Your task to perform on an android device: What's the weather going to be this weekend? Image 0: 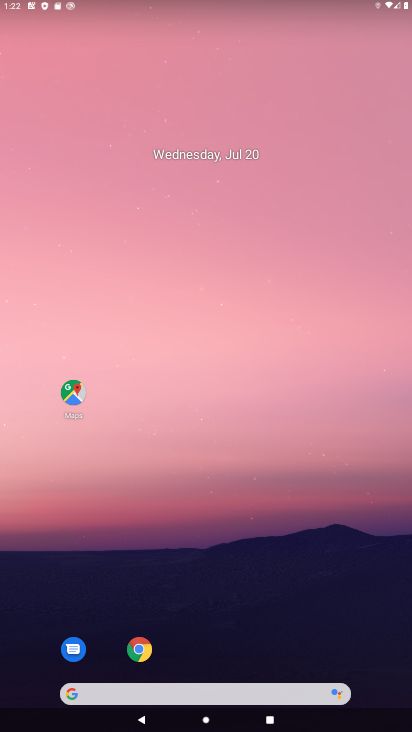
Step 0: press home button
Your task to perform on an android device: What's the weather going to be this weekend? Image 1: 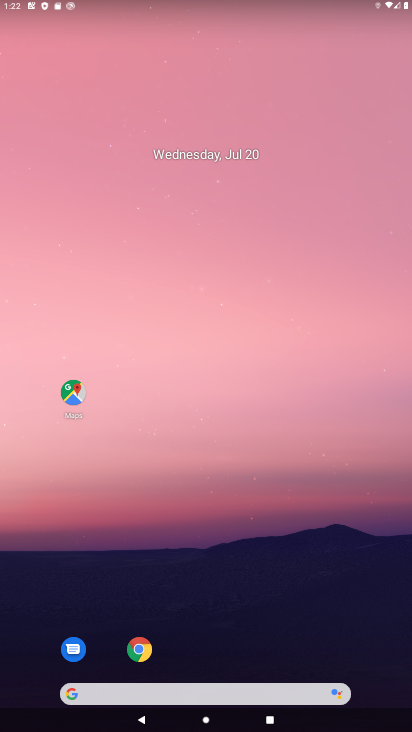
Step 1: click (145, 642)
Your task to perform on an android device: What's the weather going to be this weekend? Image 2: 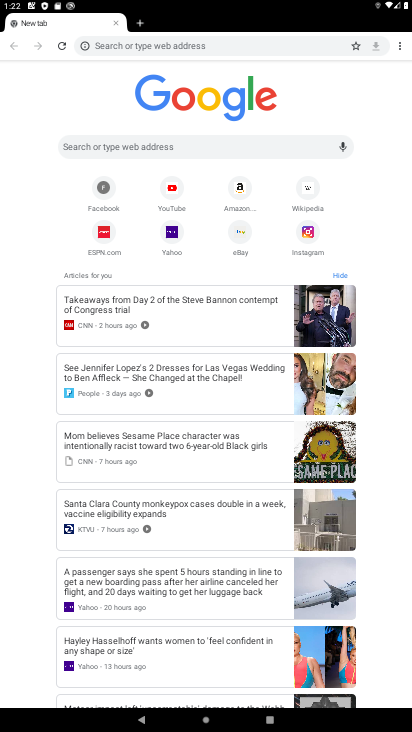
Step 2: click (212, 40)
Your task to perform on an android device: What's the weather going to be this weekend? Image 3: 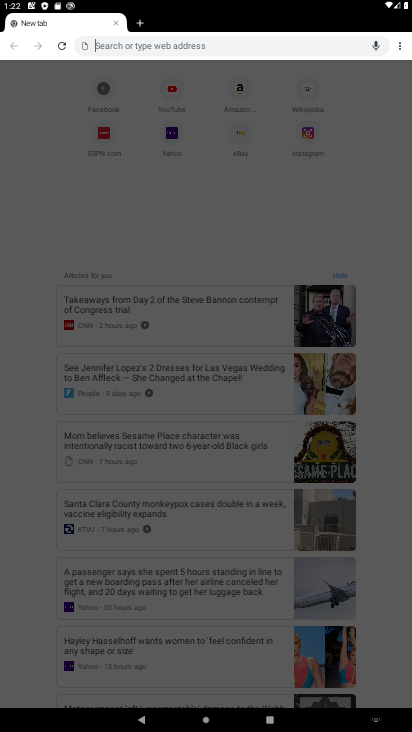
Step 3: type "What's the weather going to be this weekend?"
Your task to perform on an android device: What's the weather going to be this weekend? Image 4: 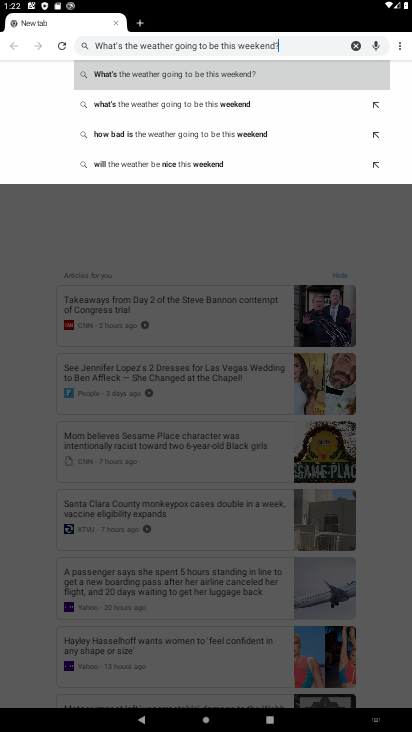
Step 4: type ""
Your task to perform on an android device: What's the weather going to be this weekend? Image 5: 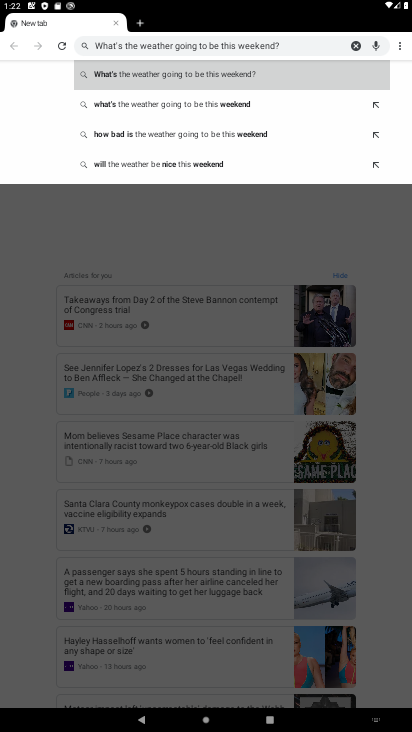
Step 5: click (139, 70)
Your task to perform on an android device: What's the weather going to be this weekend? Image 6: 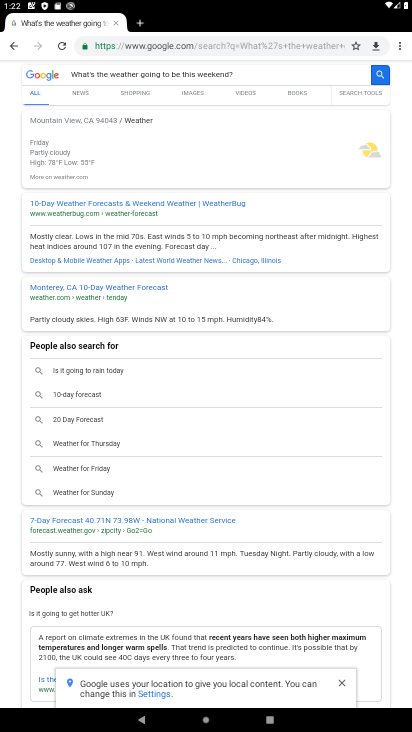
Step 6: task complete